Your task to perform on an android device: turn off wifi Image 0: 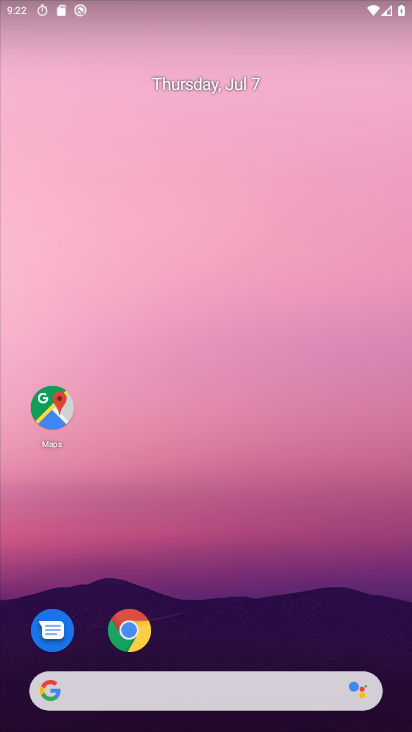
Step 0: drag from (24, 718) to (127, 196)
Your task to perform on an android device: turn off wifi Image 1: 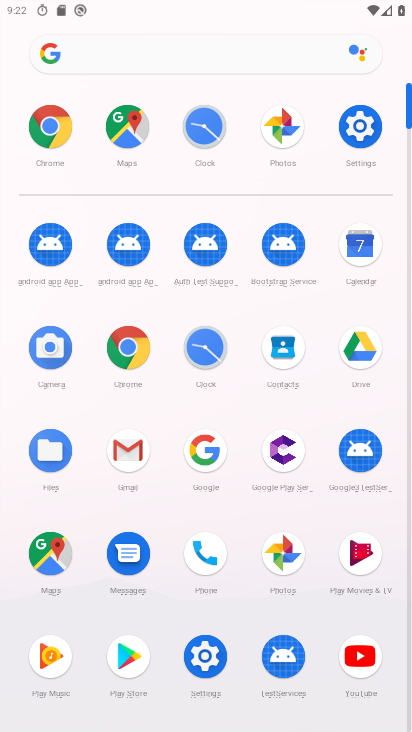
Step 1: click (203, 647)
Your task to perform on an android device: turn off wifi Image 2: 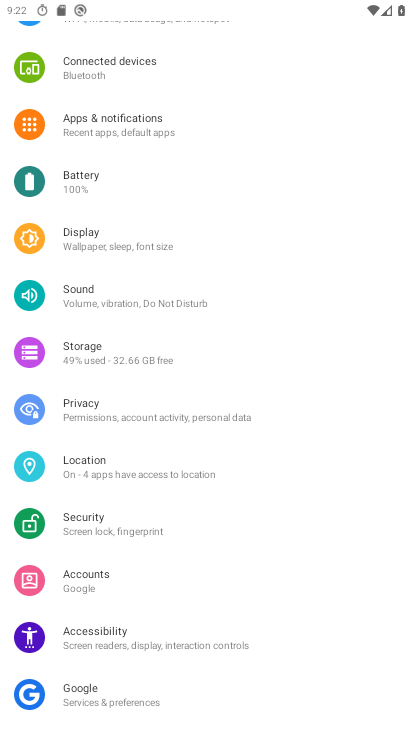
Step 2: drag from (294, 196) to (313, 8)
Your task to perform on an android device: turn off wifi Image 3: 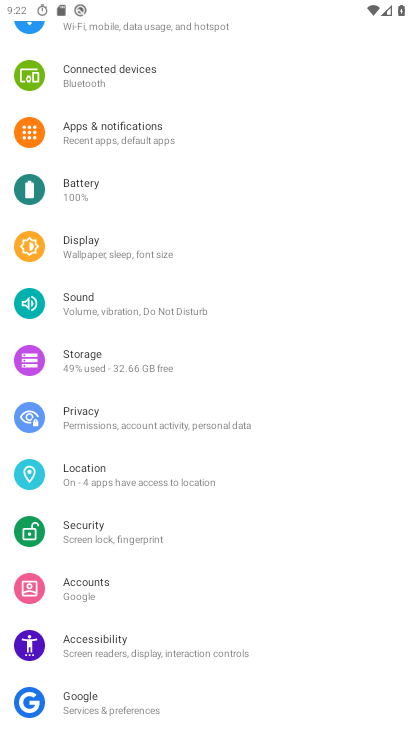
Step 3: drag from (246, 76) to (243, 731)
Your task to perform on an android device: turn off wifi Image 4: 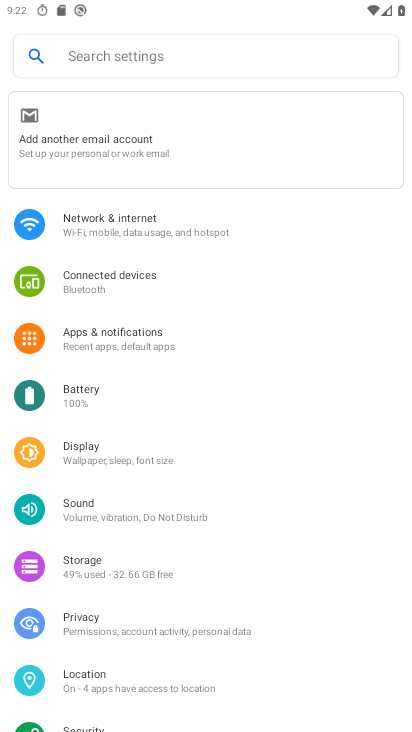
Step 4: click (147, 232)
Your task to perform on an android device: turn off wifi Image 5: 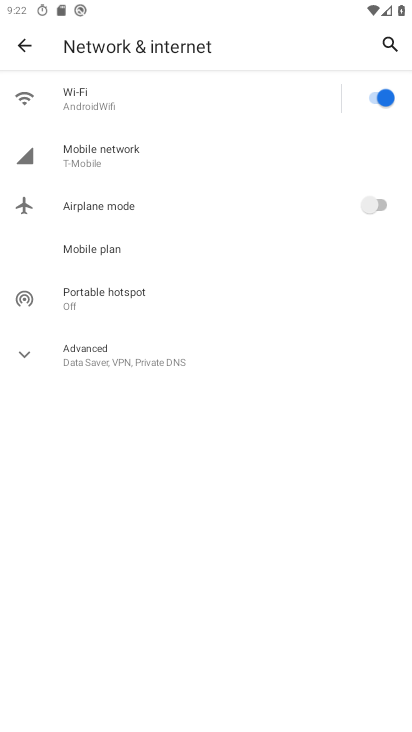
Step 5: click (381, 94)
Your task to perform on an android device: turn off wifi Image 6: 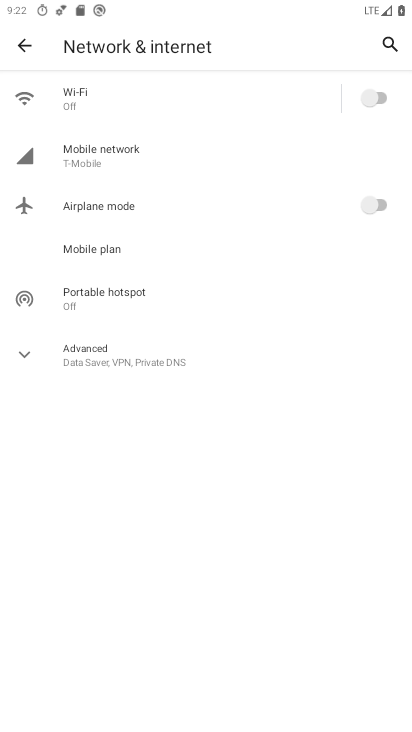
Step 6: task complete